Your task to perform on an android device: Open display settings Image 0: 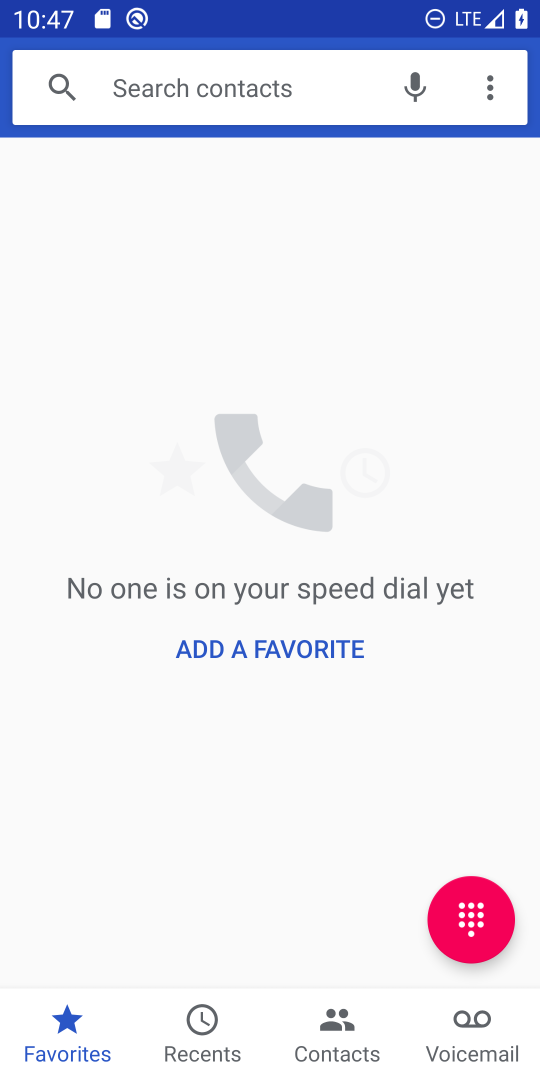
Step 0: press home button
Your task to perform on an android device: Open display settings Image 1: 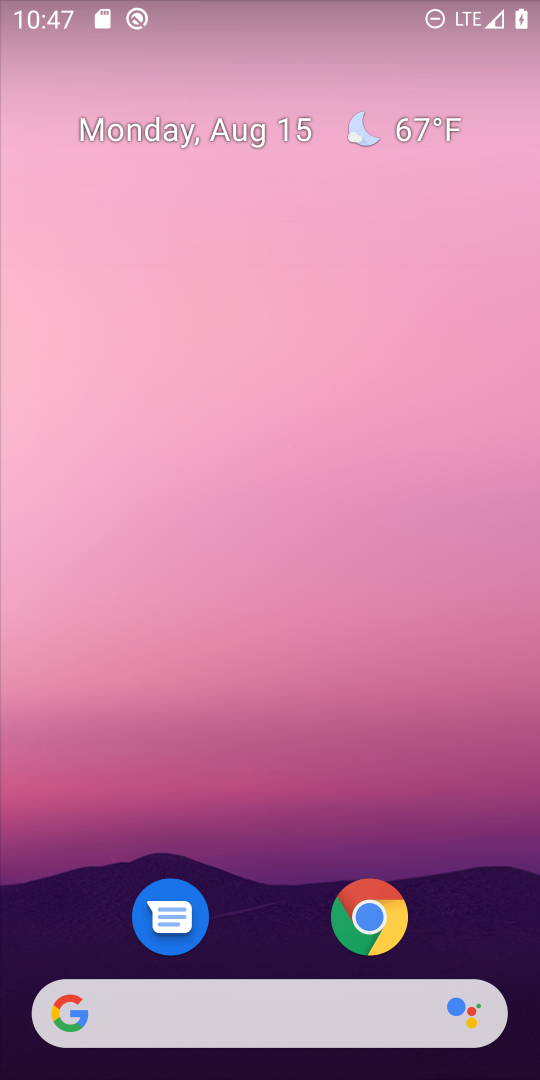
Step 1: drag from (259, 875) to (409, 15)
Your task to perform on an android device: Open display settings Image 2: 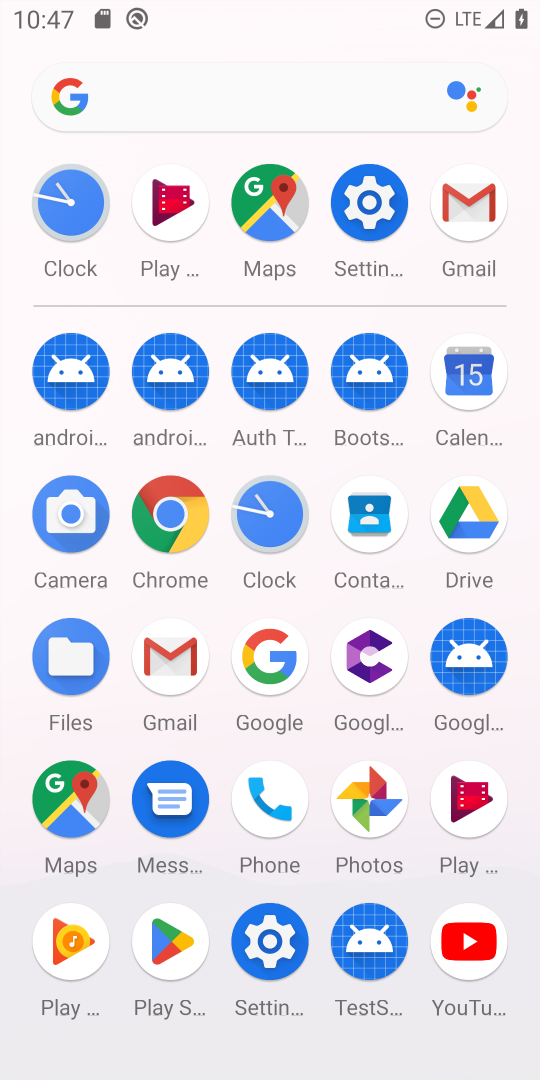
Step 2: click (374, 207)
Your task to perform on an android device: Open display settings Image 3: 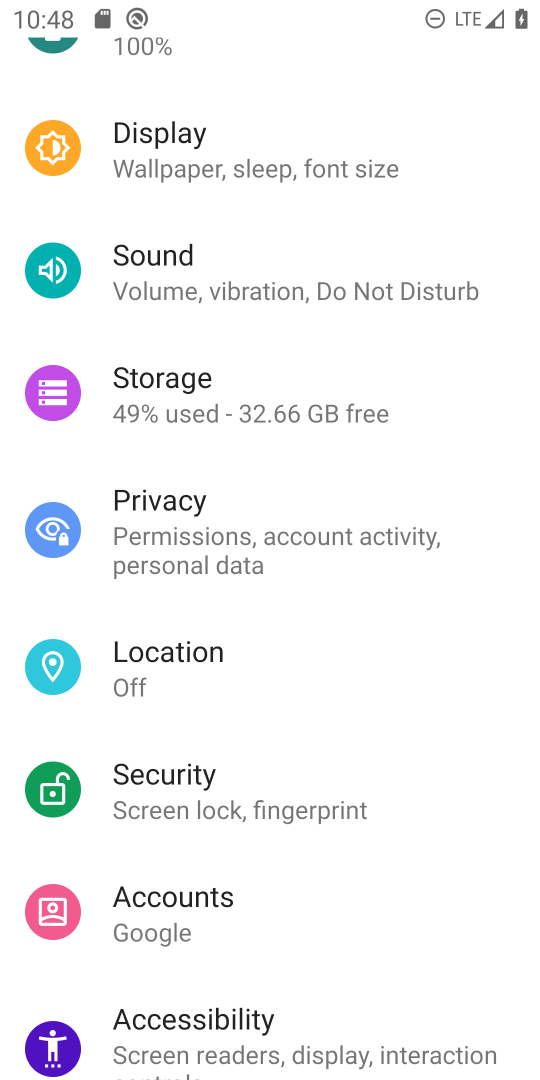
Step 3: click (261, 157)
Your task to perform on an android device: Open display settings Image 4: 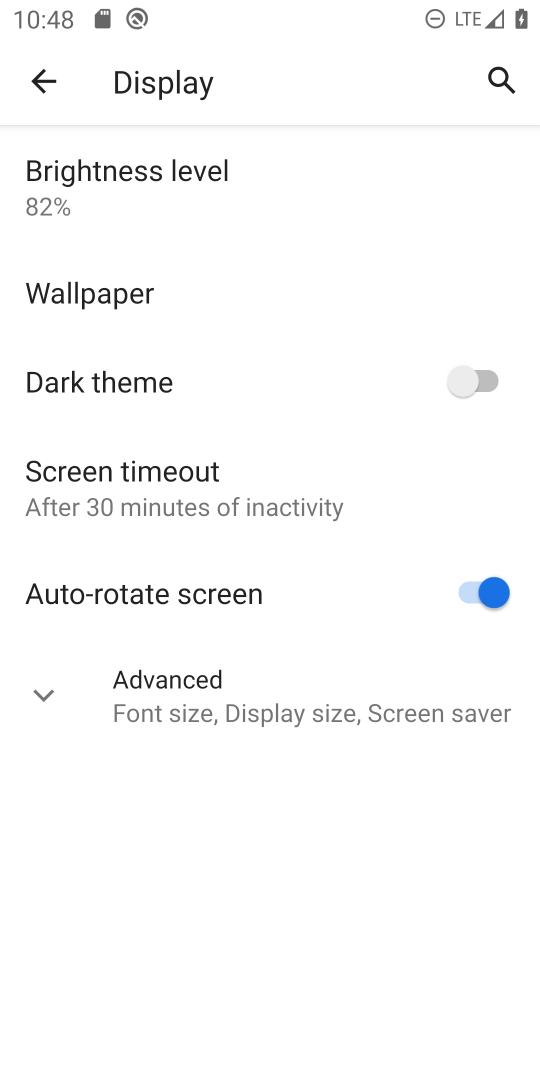
Step 4: click (44, 687)
Your task to perform on an android device: Open display settings Image 5: 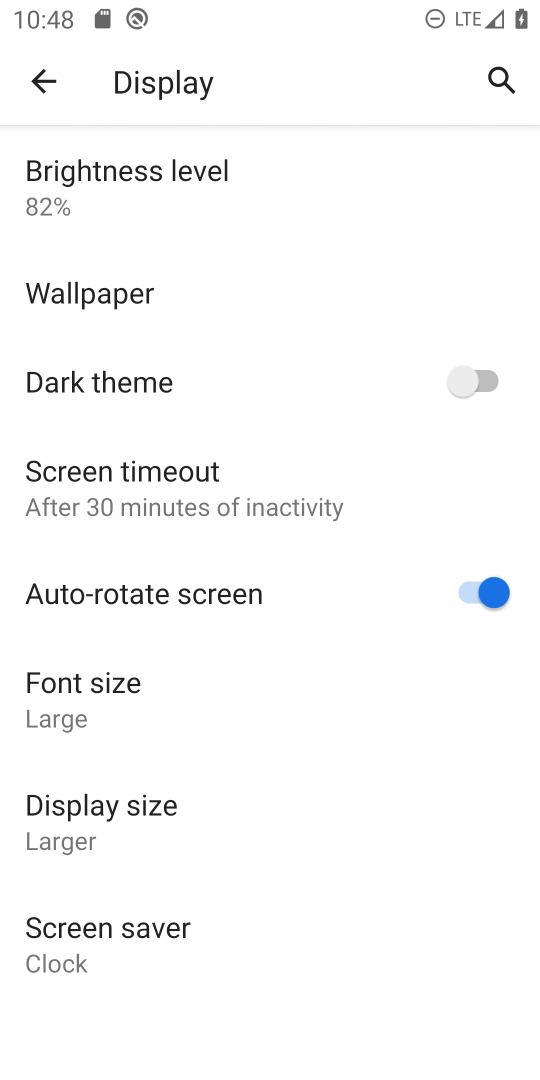
Step 5: task complete